Your task to perform on an android device: uninstall "Messenger Lite" Image 0: 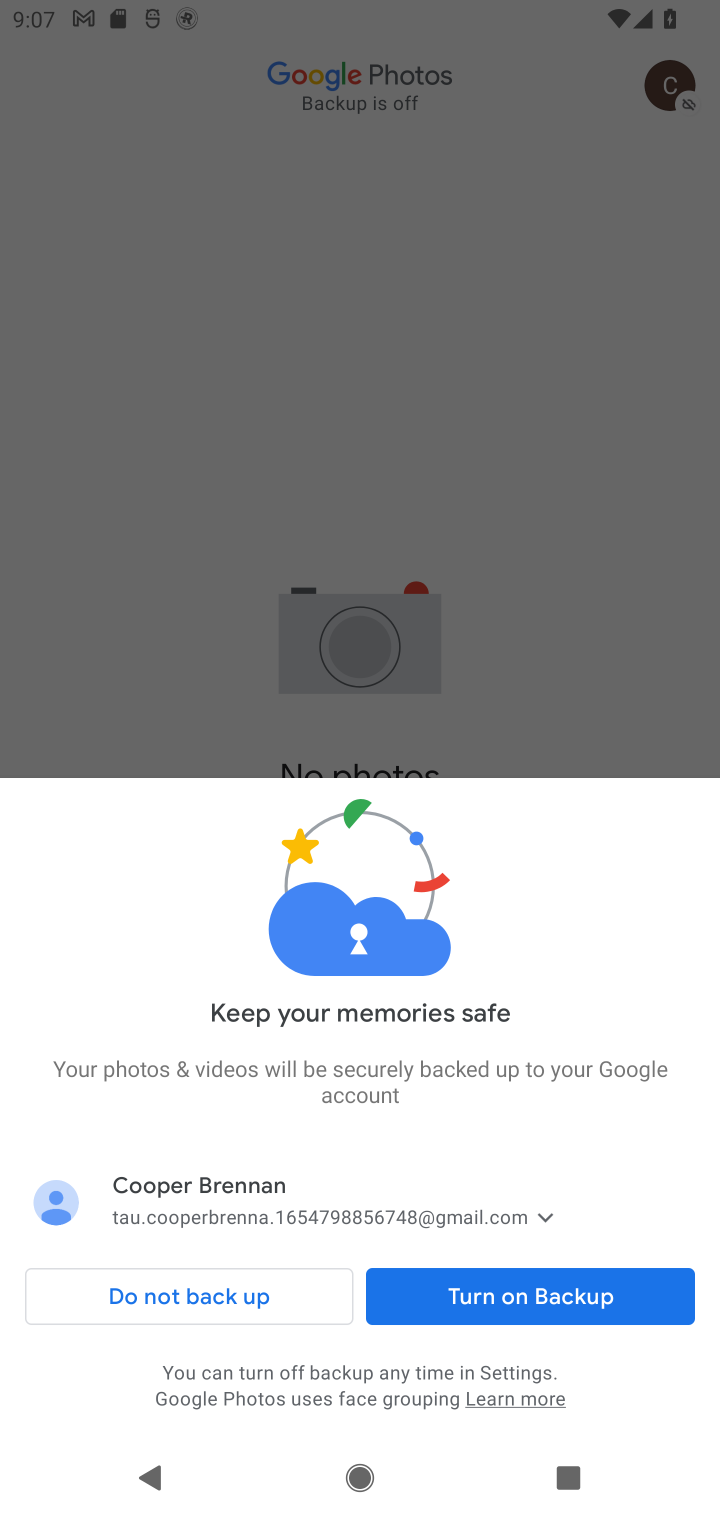
Step 0: press home button
Your task to perform on an android device: uninstall "Messenger Lite" Image 1: 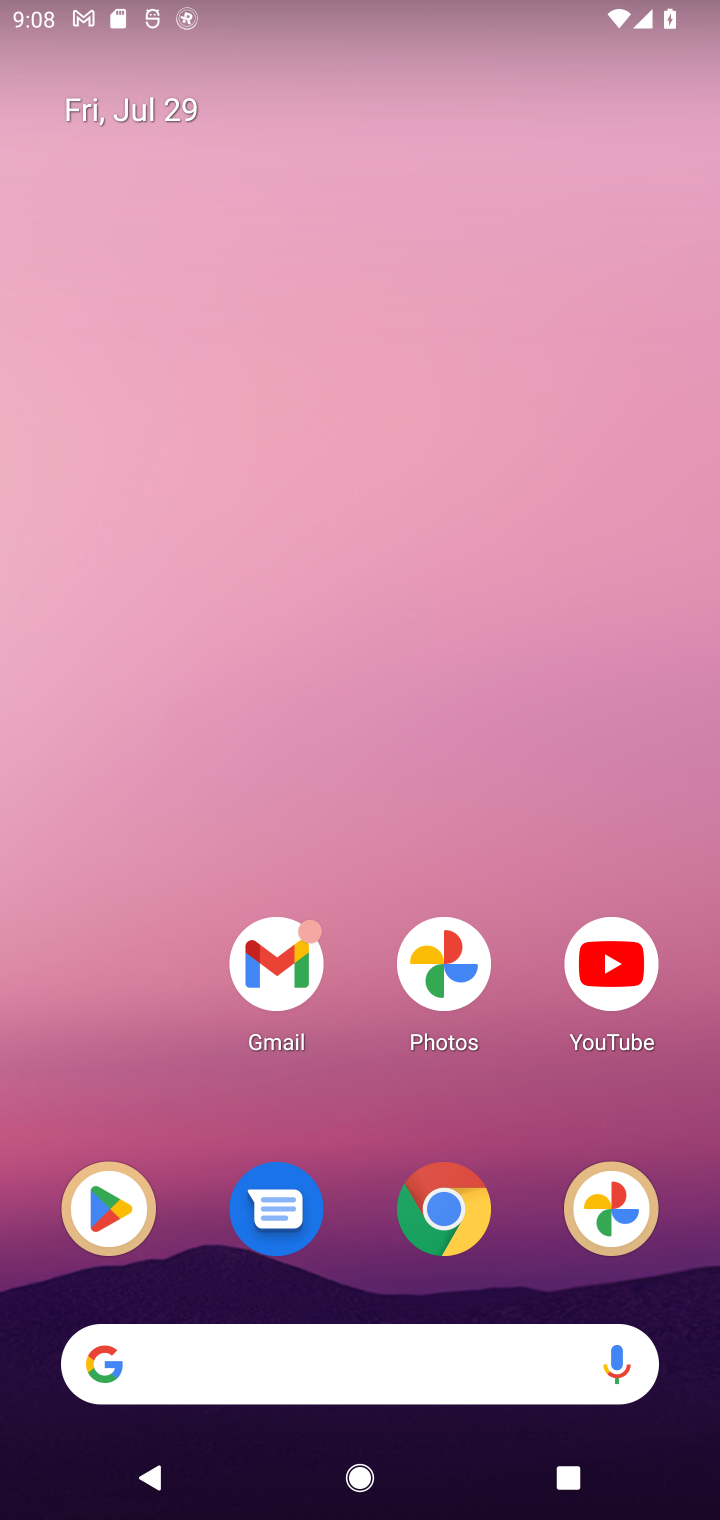
Step 1: drag from (265, 1363) to (324, 151)
Your task to perform on an android device: uninstall "Messenger Lite" Image 2: 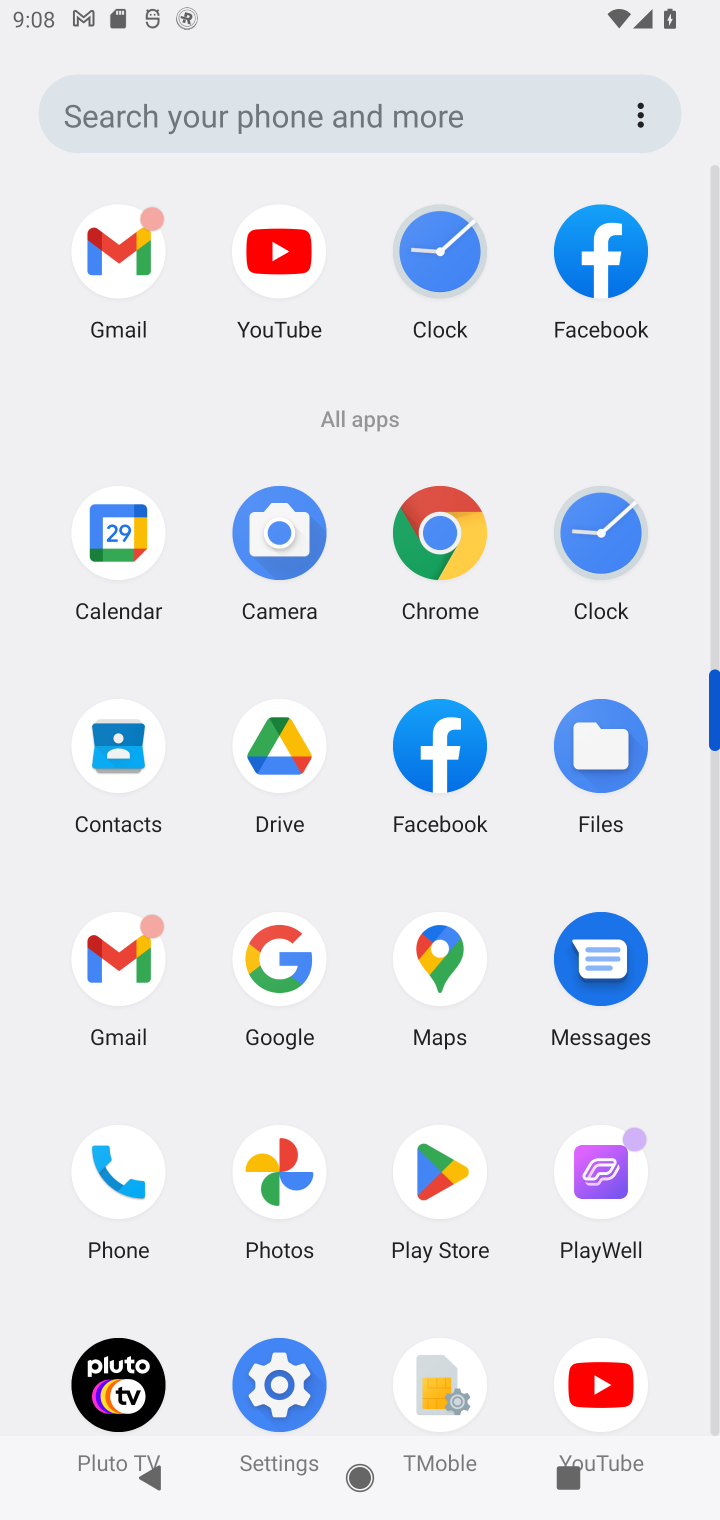
Step 2: click (449, 1188)
Your task to perform on an android device: uninstall "Messenger Lite" Image 3: 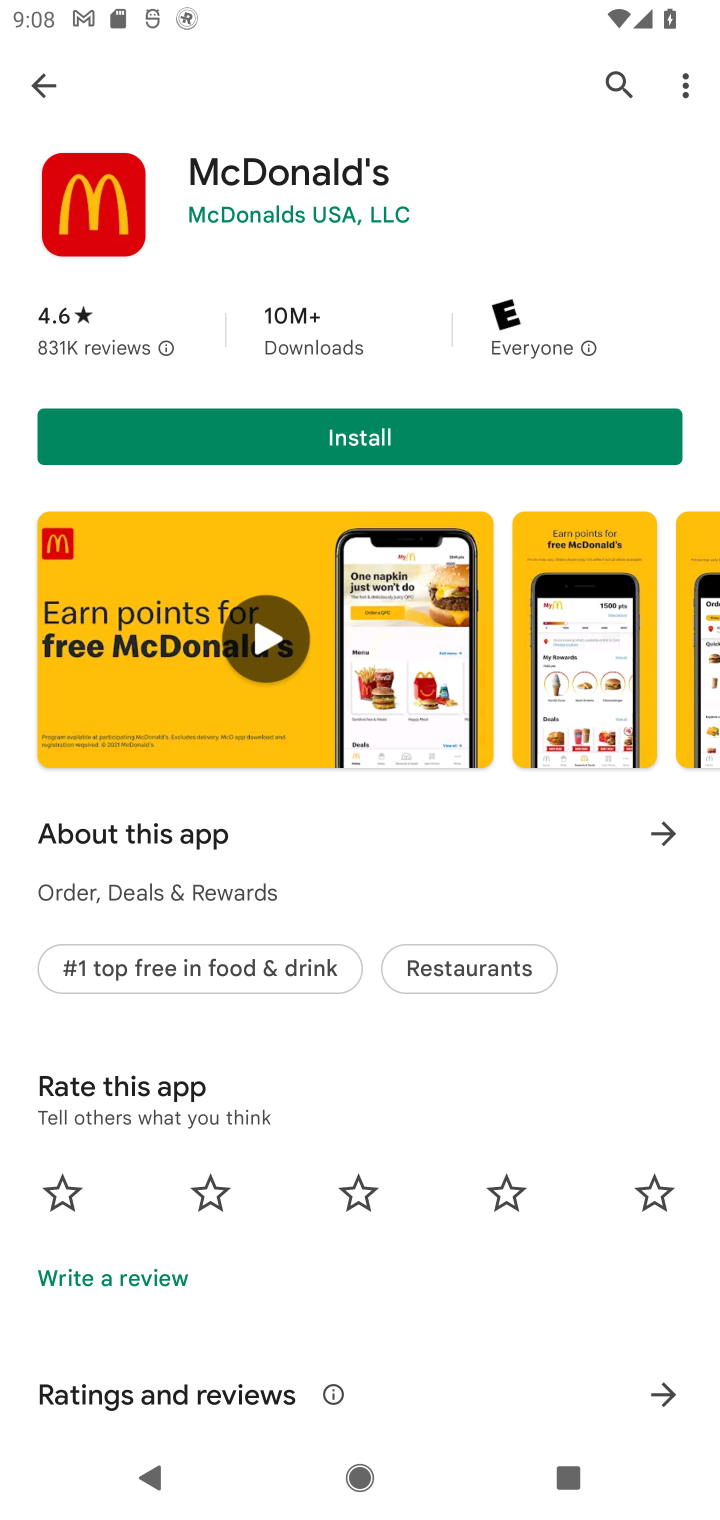
Step 3: click (616, 84)
Your task to perform on an android device: uninstall "Messenger Lite" Image 4: 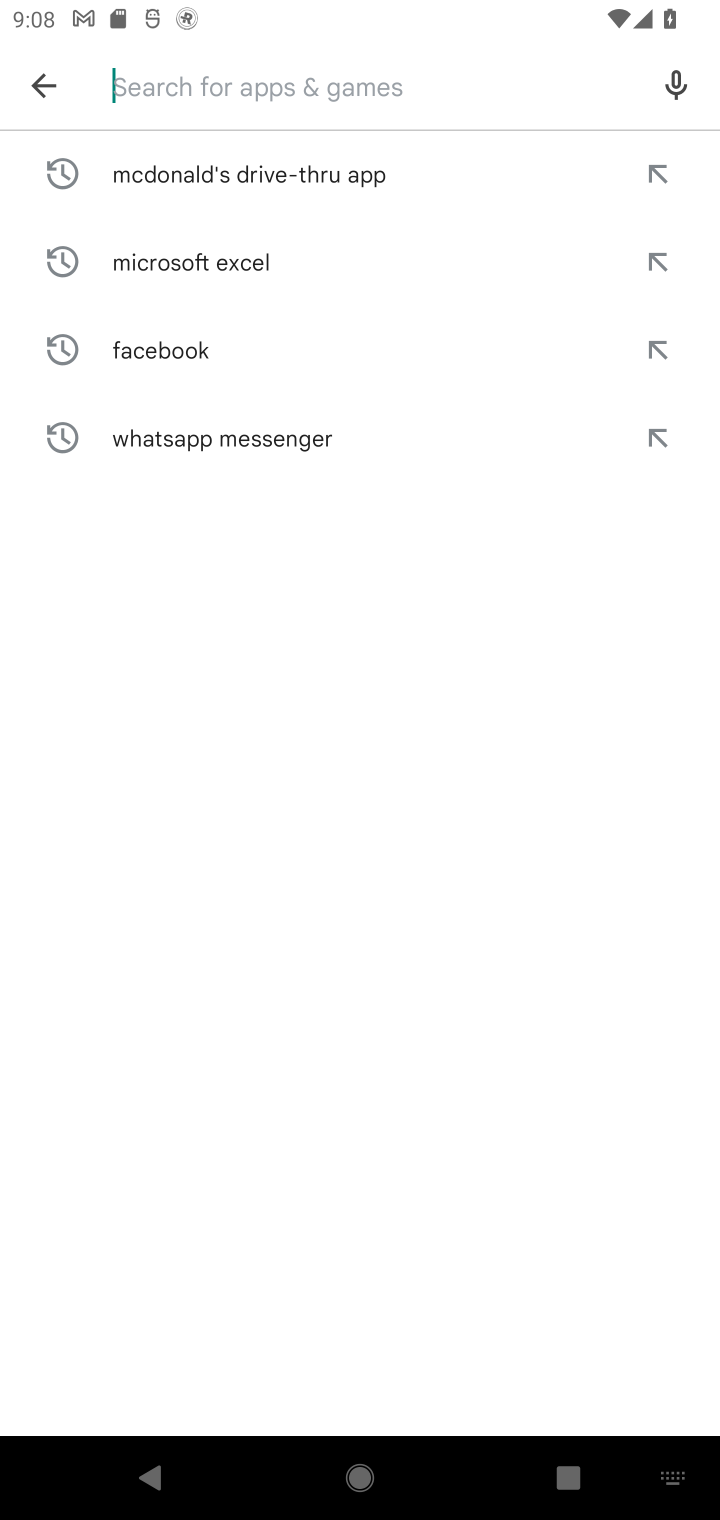
Step 4: type "Messenger Lite"
Your task to perform on an android device: uninstall "Messenger Lite" Image 5: 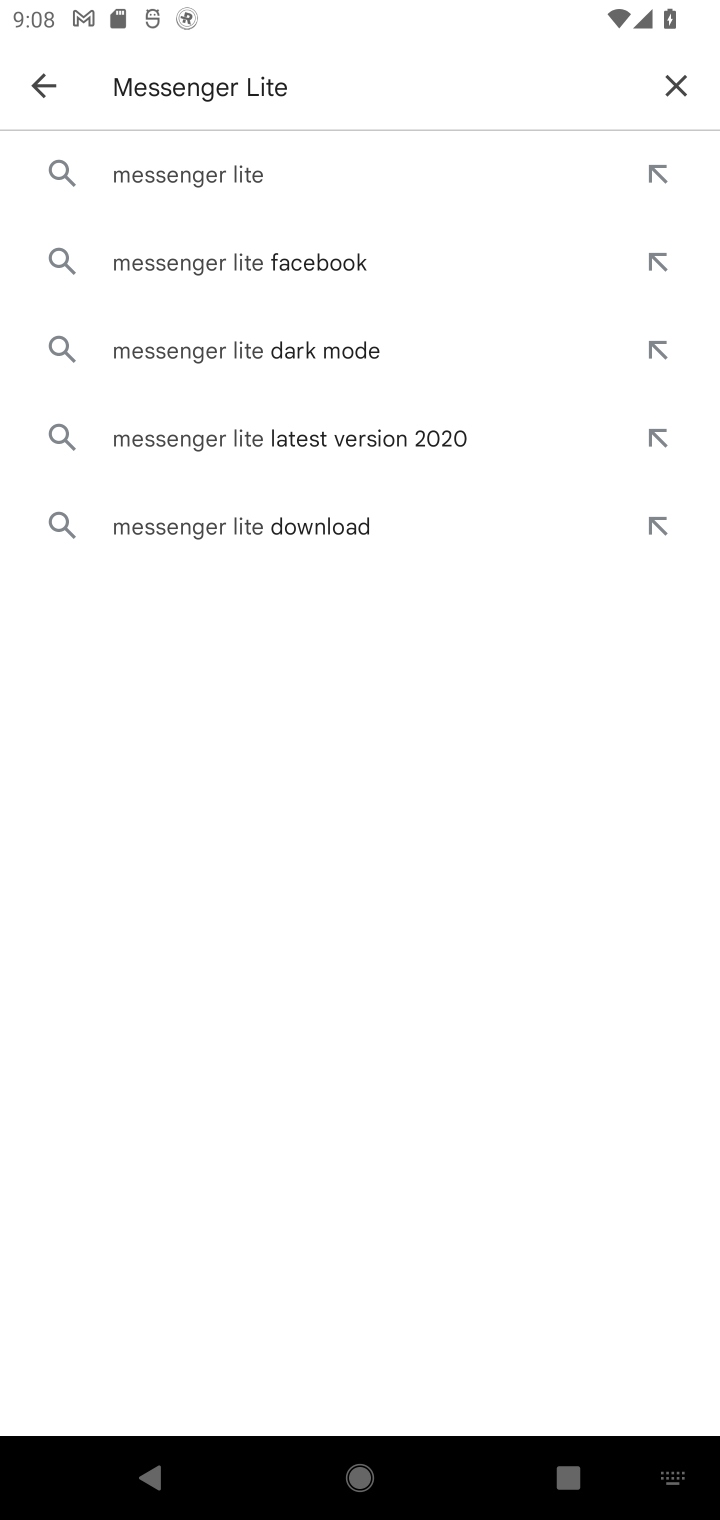
Step 5: click (213, 180)
Your task to perform on an android device: uninstall "Messenger Lite" Image 6: 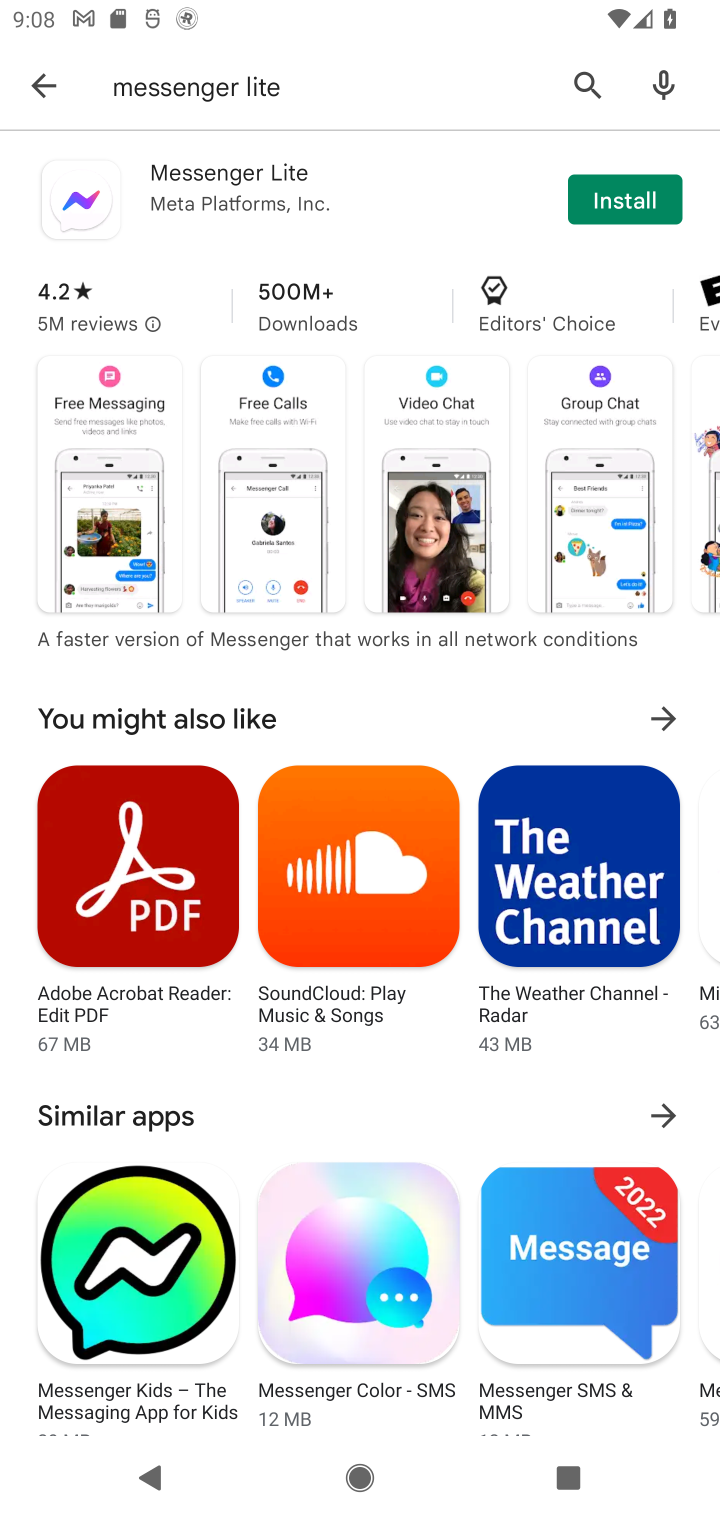
Step 6: task complete